Your task to perform on an android device: turn on notifications settings in the gmail app Image 0: 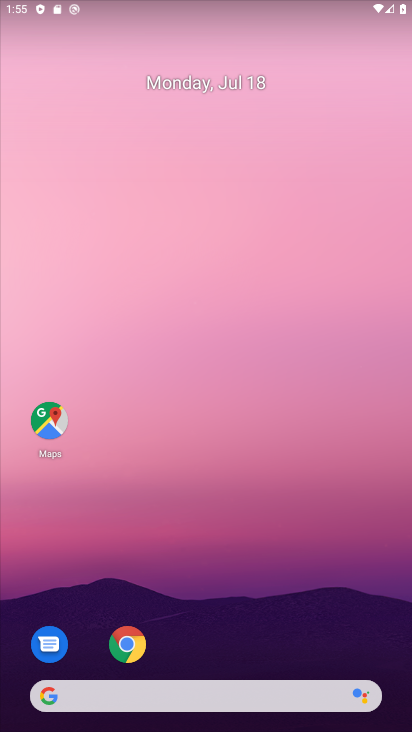
Step 0: drag from (253, 727) to (175, 245)
Your task to perform on an android device: turn on notifications settings in the gmail app Image 1: 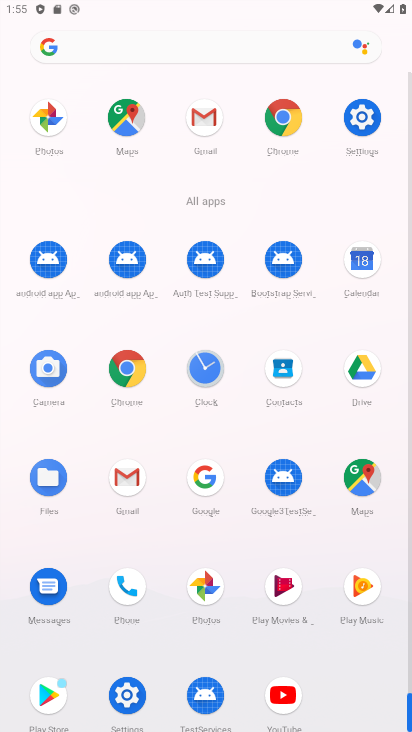
Step 1: click (121, 468)
Your task to perform on an android device: turn on notifications settings in the gmail app Image 2: 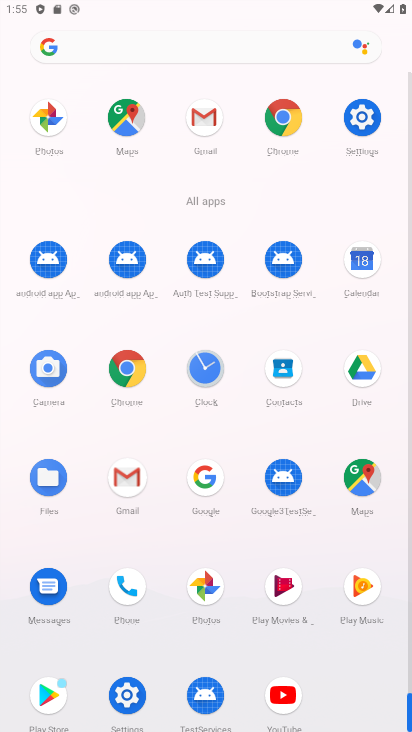
Step 2: click (122, 469)
Your task to perform on an android device: turn on notifications settings in the gmail app Image 3: 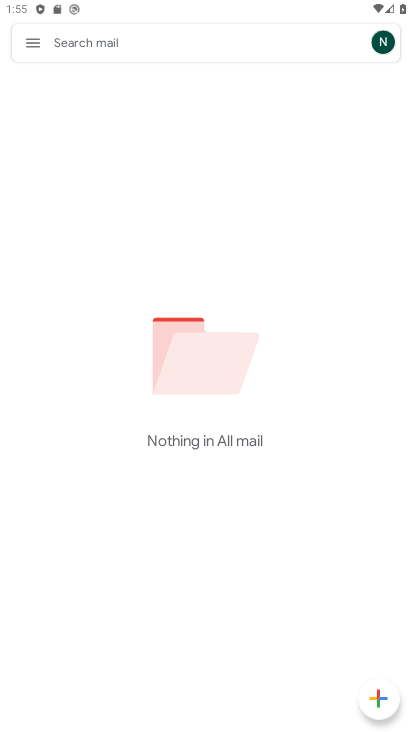
Step 3: click (17, 30)
Your task to perform on an android device: turn on notifications settings in the gmail app Image 4: 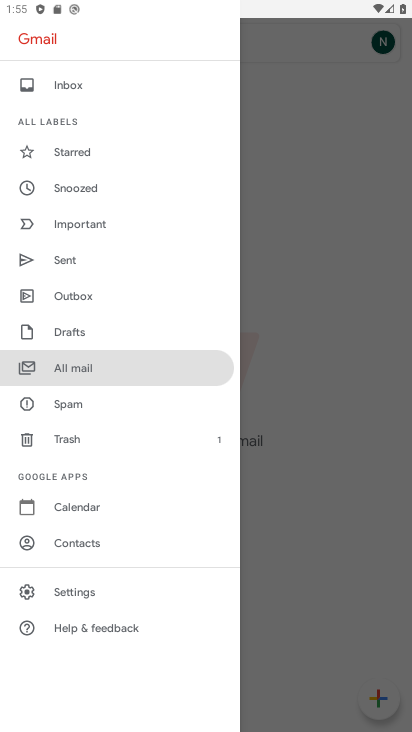
Step 4: click (76, 368)
Your task to perform on an android device: turn on notifications settings in the gmail app Image 5: 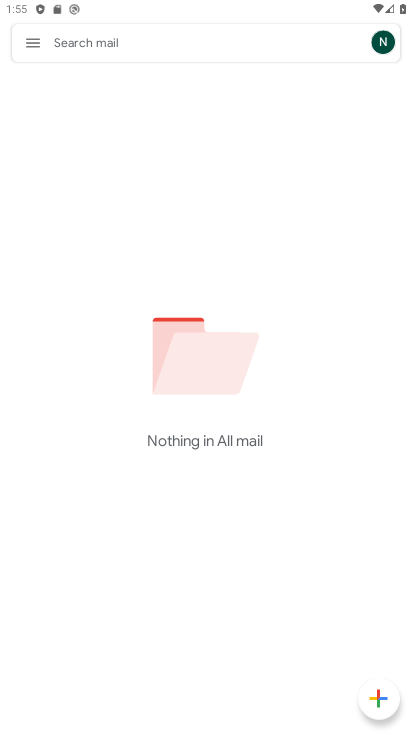
Step 5: click (86, 592)
Your task to perform on an android device: turn on notifications settings in the gmail app Image 6: 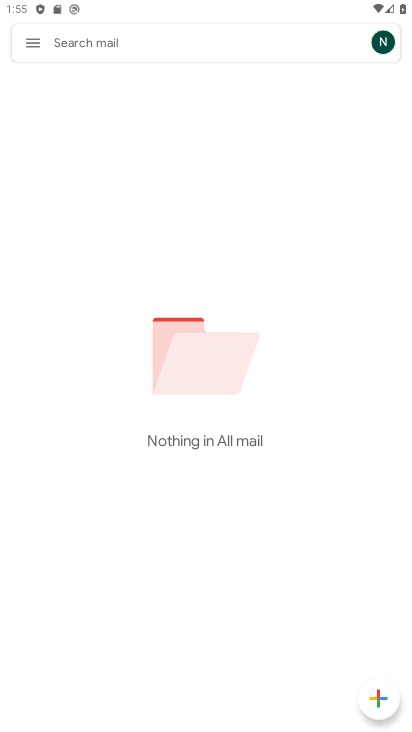
Step 6: click (35, 40)
Your task to perform on an android device: turn on notifications settings in the gmail app Image 7: 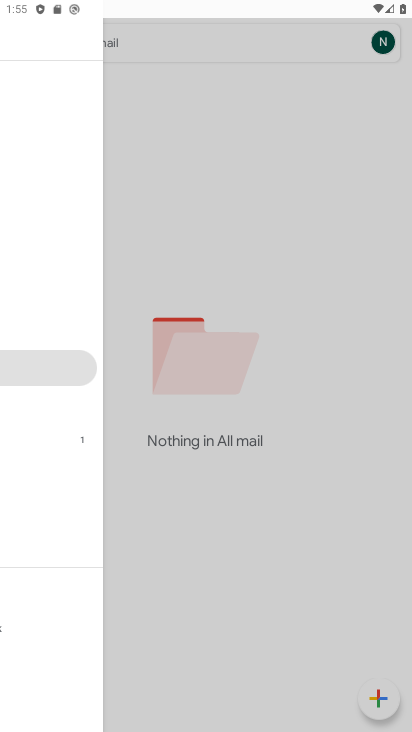
Step 7: click (35, 40)
Your task to perform on an android device: turn on notifications settings in the gmail app Image 8: 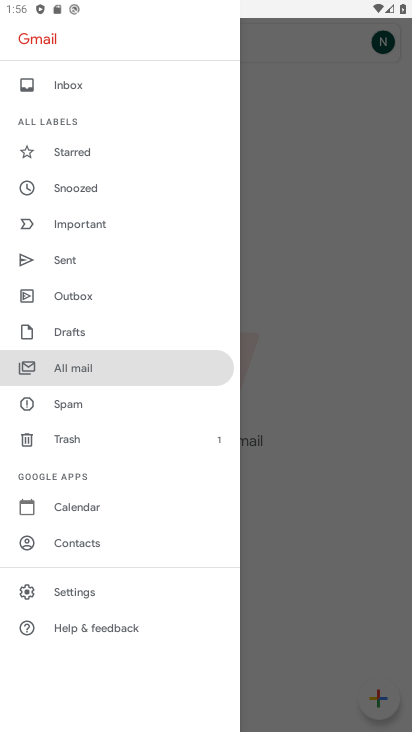
Step 8: click (67, 598)
Your task to perform on an android device: turn on notifications settings in the gmail app Image 9: 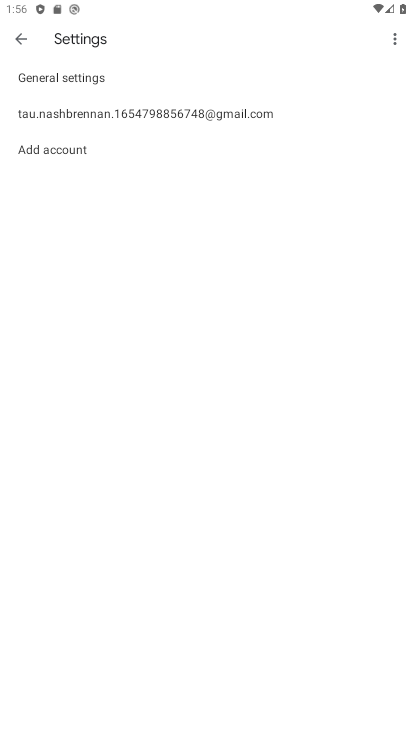
Step 9: click (118, 107)
Your task to perform on an android device: turn on notifications settings in the gmail app Image 10: 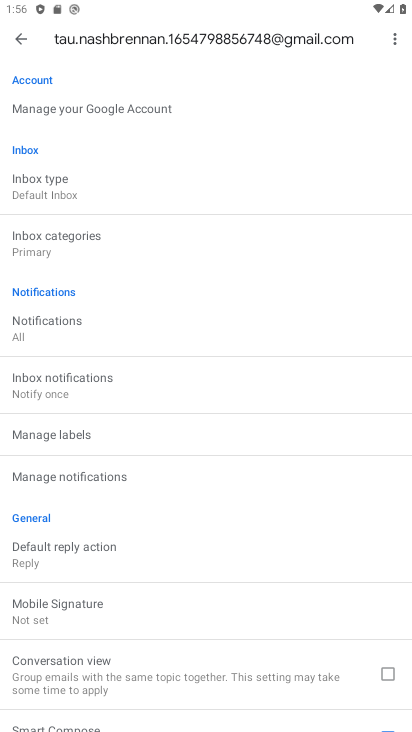
Step 10: click (137, 109)
Your task to perform on an android device: turn on notifications settings in the gmail app Image 11: 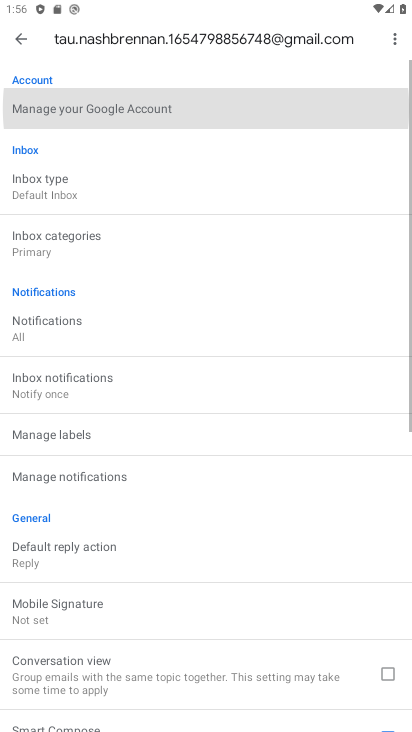
Step 11: click (137, 109)
Your task to perform on an android device: turn on notifications settings in the gmail app Image 12: 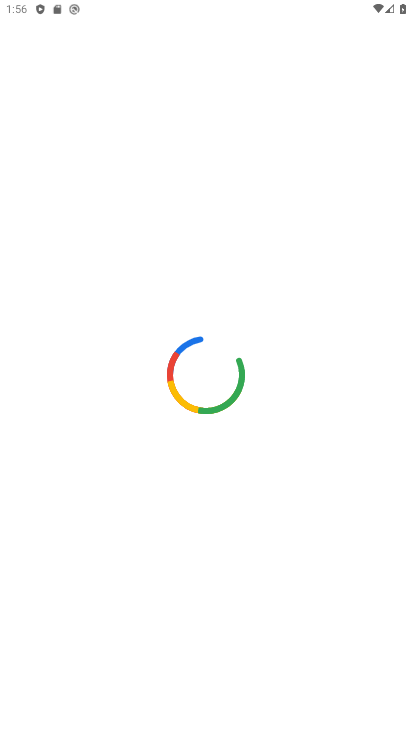
Step 12: click (258, 294)
Your task to perform on an android device: turn on notifications settings in the gmail app Image 13: 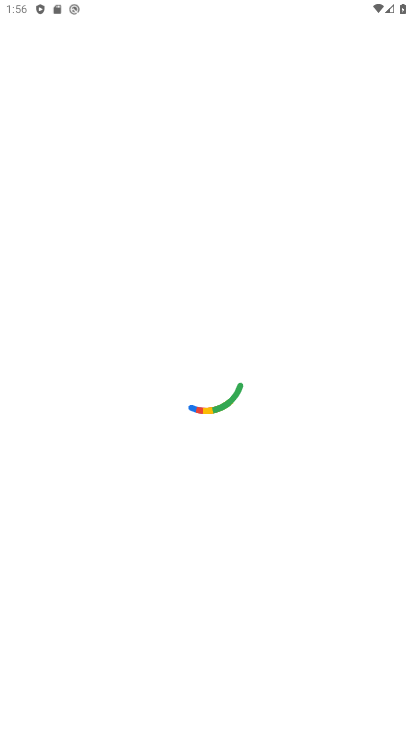
Step 13: click (258, 291)
Your task to perform on an android device: turn on notifications settings in the gmail app Image 14: 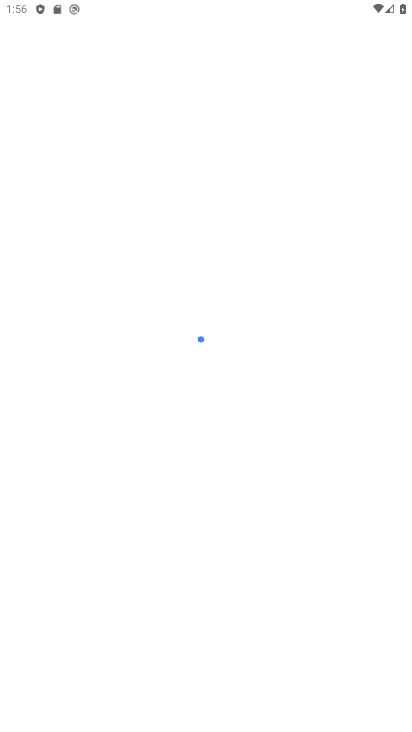
Step 14: press back button
Your task to perform on an android device: turn on notifications settings in the gmail app Image 15: 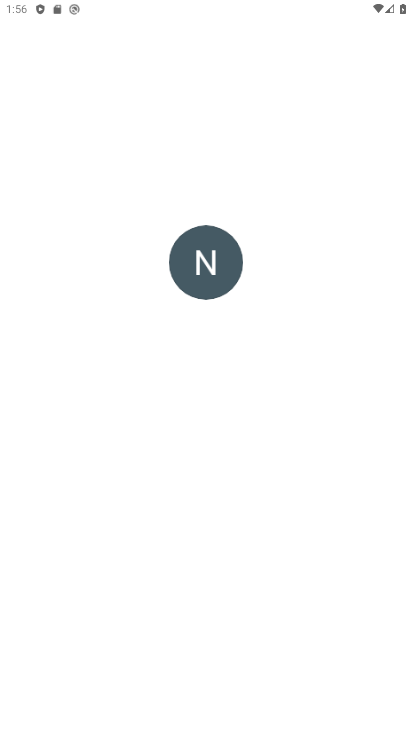
Step 15: press back button
Your task to perform on an android device: turn on notifications settings in the gmail app Image 16: 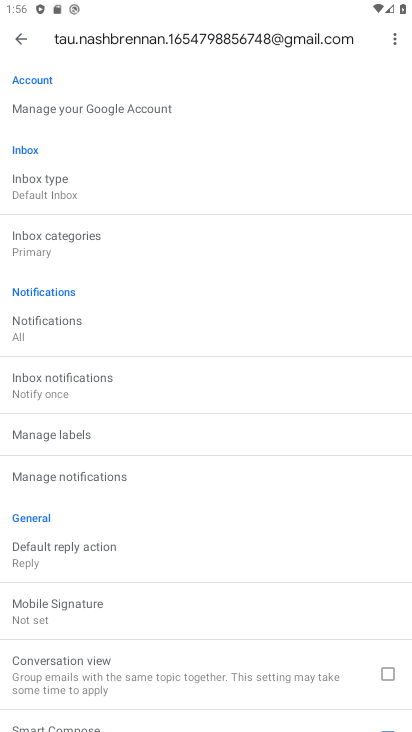
Step 16: click (27, 318)
Your task to perform on an android device: turn on notifications settings in the gmail app Image 17: 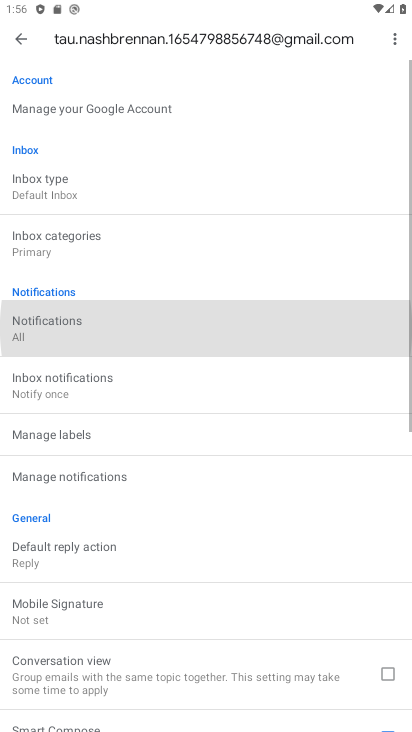
Step 17: click (31, 319)
Your task to perform on an android device: turn on notifications settings in the gmail app Image 18: 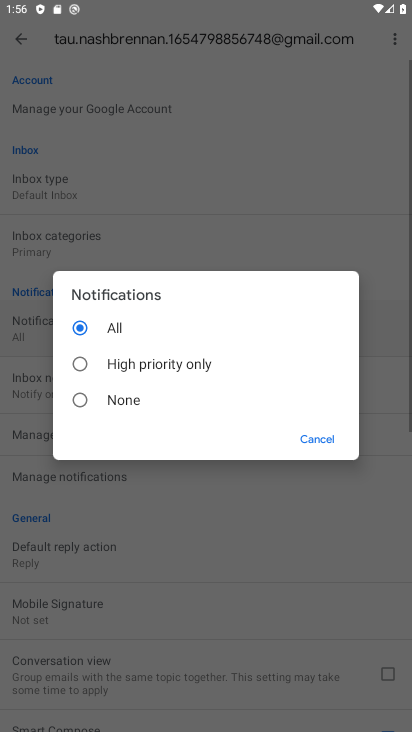
Step 18: click (31, 319)
Your task to perform on an android device: turn on notifications settings in the gmail app Image 19: 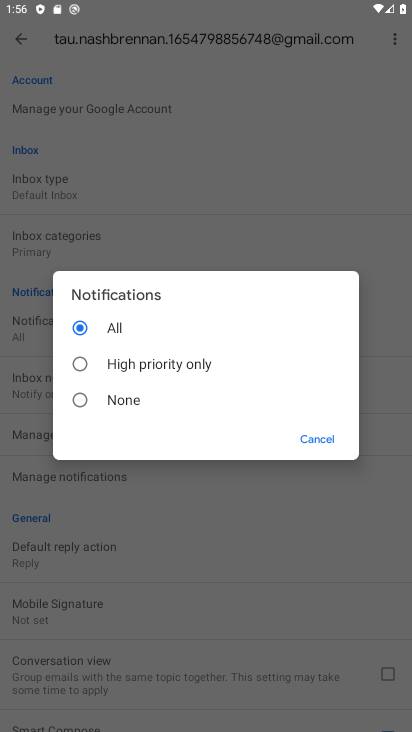
Step 19: click (312, 426)
Your task to perform on an android device: turn on notifications settings in the gmail app Image 20: 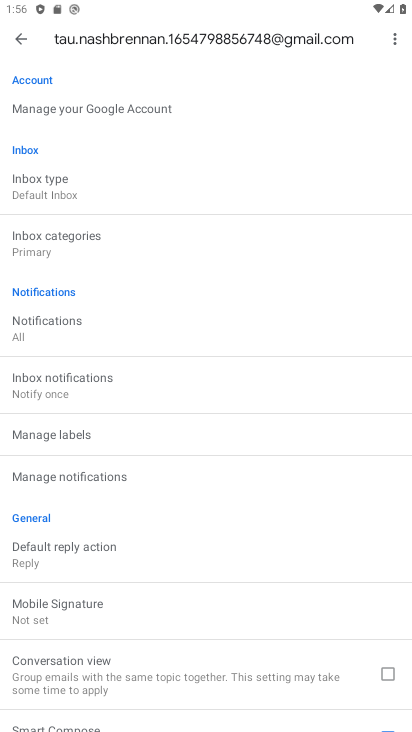
Step 20: task complete